Your task to perform on an android device: open the mobile data screen to see how much data has been used Image 0: 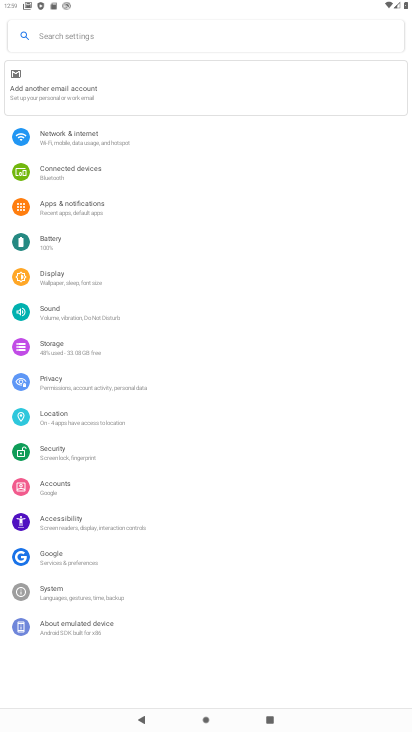
Step 0: click (118, 122)
Your task to perform on an android device: open the mobile data screen to see how much data has been used Image 1: 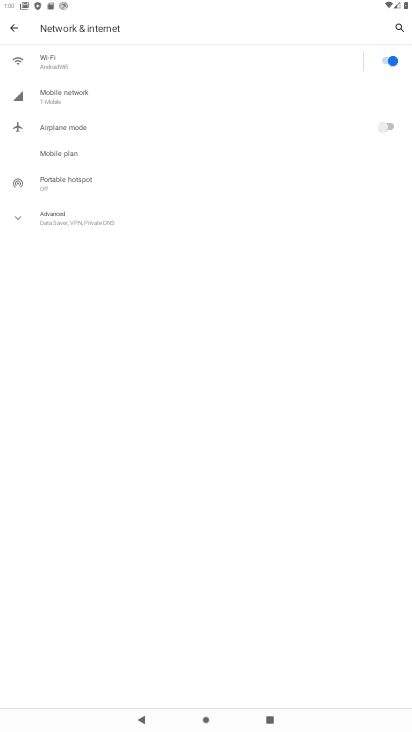
Step 1: click (130, 90)
Your task to perform on an android device: open the mobile data screen to see how much data has been used Image 2: 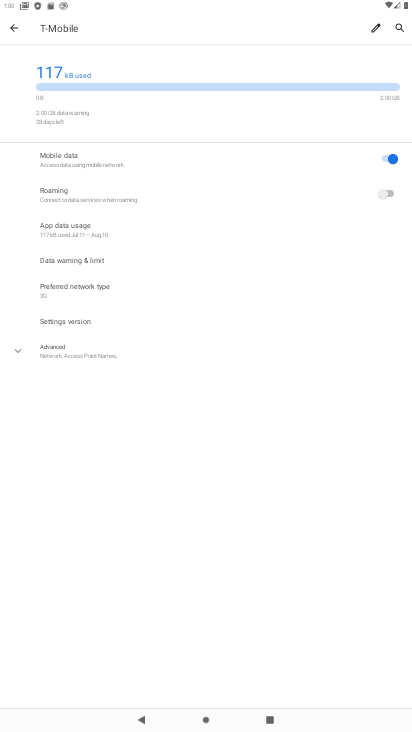
Step 2: click (90, 226)
Your task to perform on an android device: open the mobile data screen to see how much data has been used Image 3: 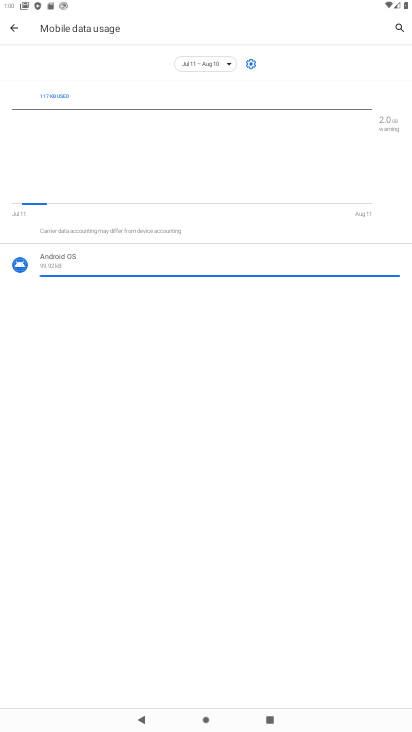
Step 3: task complete